Your task to perform on an android device: Search for vegetarian restaurants on Maps Image 0: 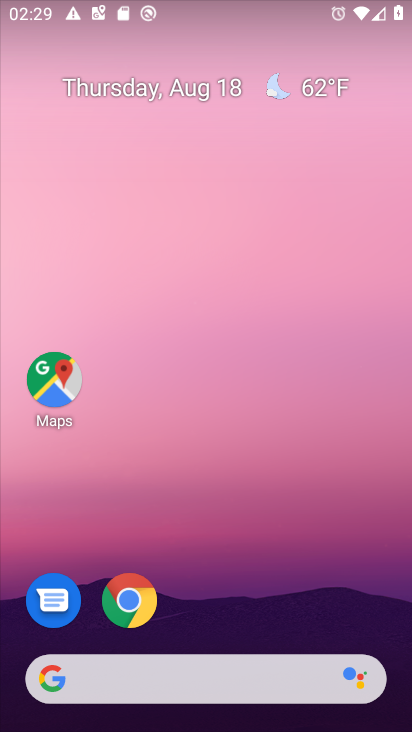
Step 0: click (70, 369)
Your task to perform on an android device: Search for vegetarian restaurants on Maps Image 1: 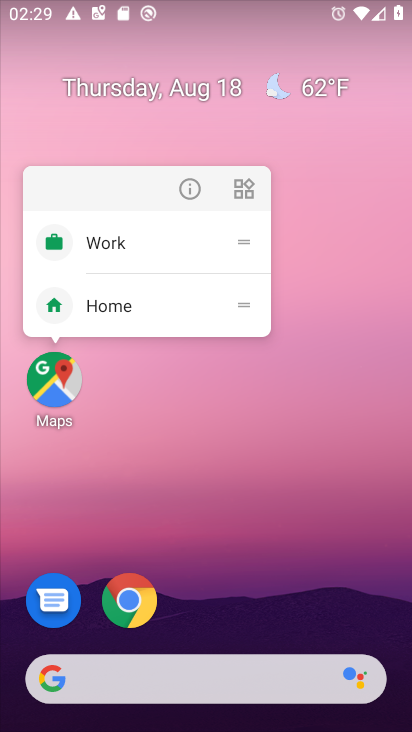
Step 1: click (57, 382)
Your task to perform on an android device: Search for vegetarian restaurants on Maps Image 2: 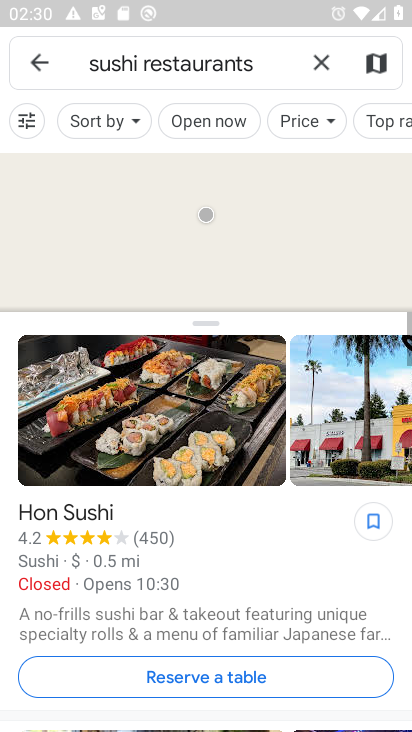
Step 2: click (325, 63)
Your task to perform on an android device: Search for vegetarian restaurants on Maps Image 3: 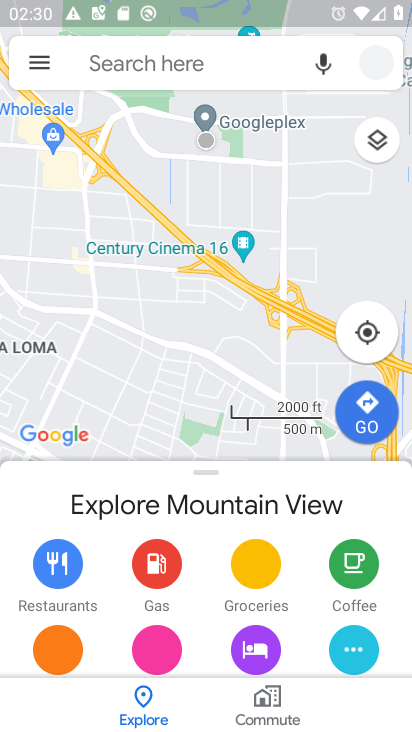
Step 3: click (153, 63)
Your task to perform on an android device: Search for vegetarian restaurants on Maps Image 4: 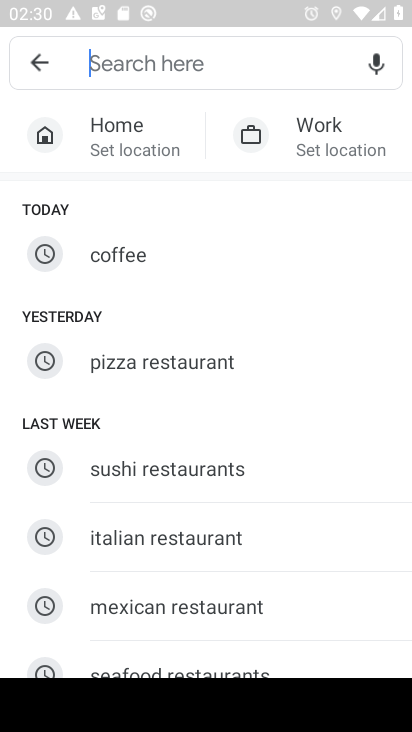
Step 4: type "vegetarian restaurants"
Your task to perform on an android device: Search for vegetarian restaurants on Maps Image 5: 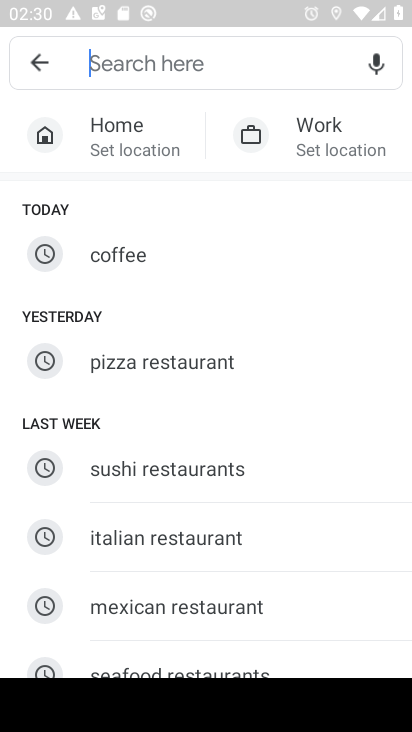
Step 5: click (194, 63)
Your task to perform on an android device: Search for vegetarian restaurants on Maps Image 6: 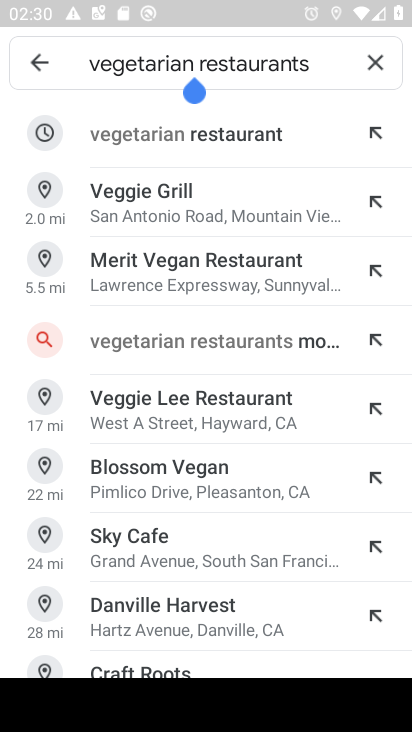
Step 6: press enter
Your task to perform on an android device: Search for vegetarian restaurants on Maps Image 7: 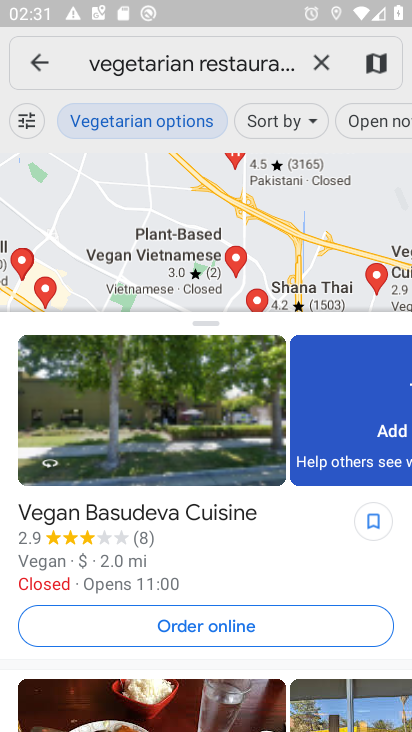
Step 7: task complete